Your task to perform on an android device: change the clock display to analog Image 0: 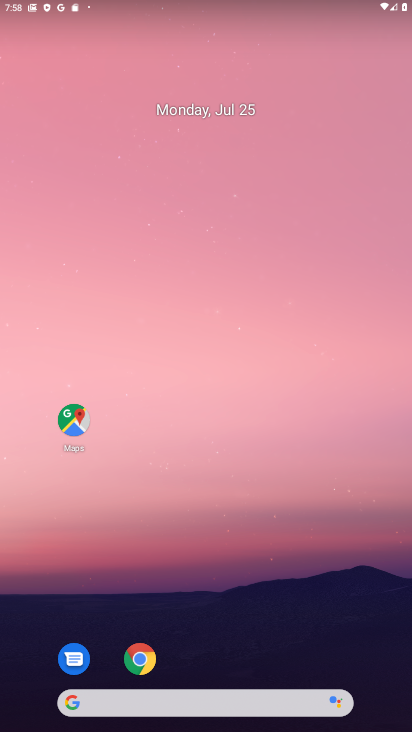
Step 0: drag from (174, 663) to (251, 147)
Your task to perform on an android device: change the clock display to analog Image 1: 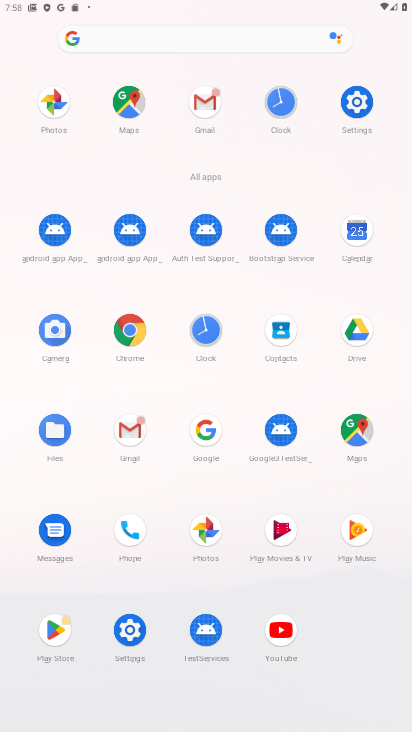
Step 1: click (205, 329)
Your task to perform on an android device: change the clock display to analog Image 2: 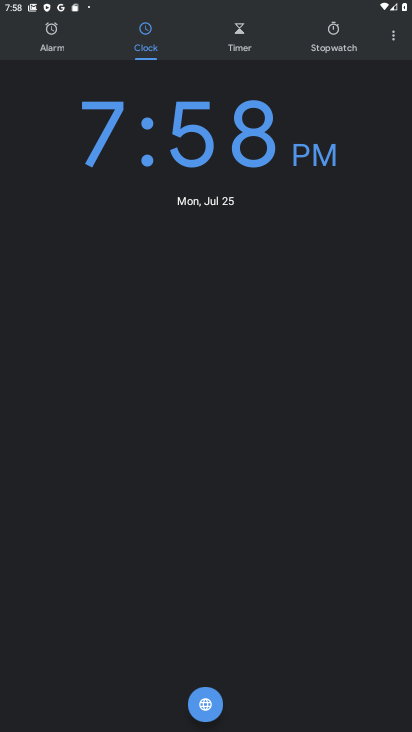
Step 2: click (391, 36)
Your task to perform on an android device: change the clock display to analog Image 3: 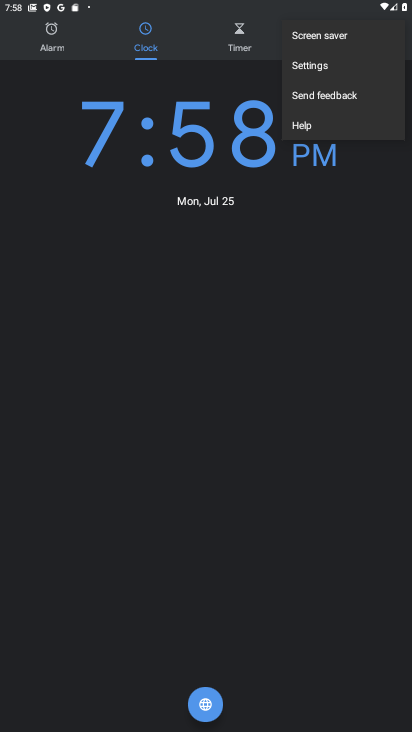
Step 3: click (328, 65)
Your task to perform on an android device: change the clock display to analog Image 4: 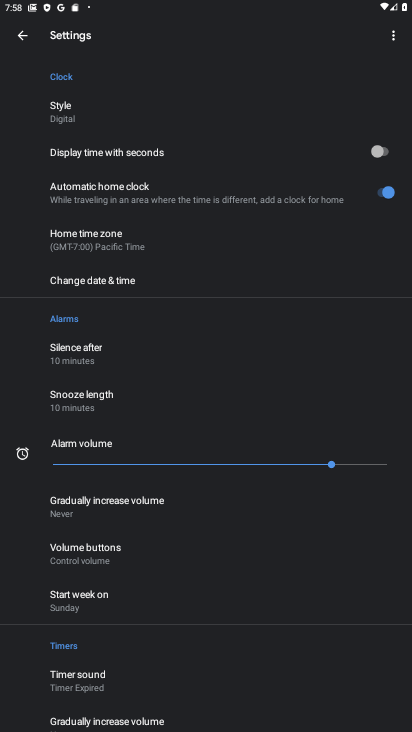
Step 4: click (60, 111)
Your task to perform on an android device: change the clock display to analog Image 5: 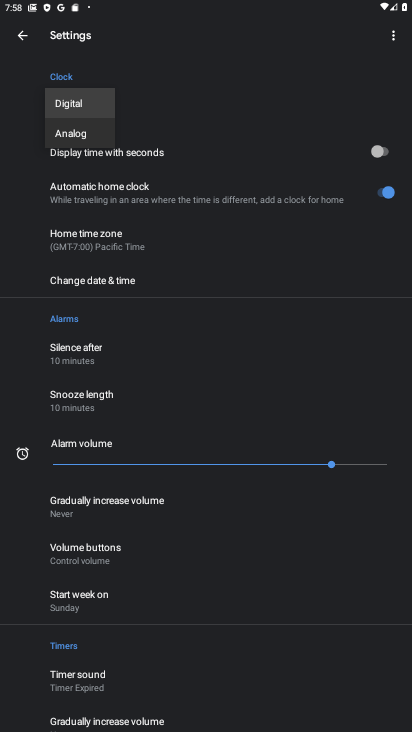
Step 5: click (69, 132)
Your task to perform on an android device: change the clock display to analog Image 6: 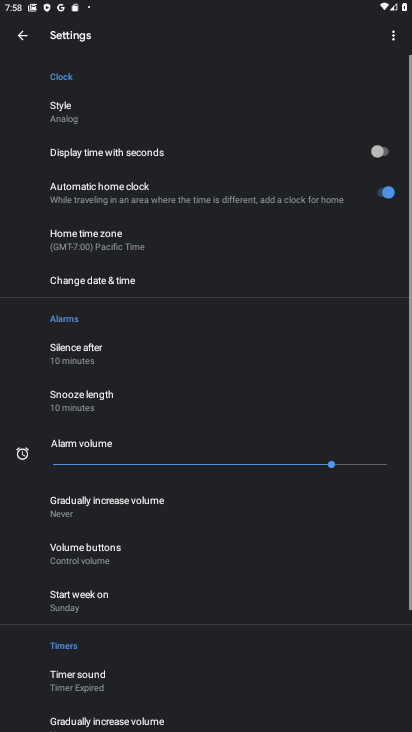
Step 6: task complete